Your task to perform on an android device: Open eBay Image 0: 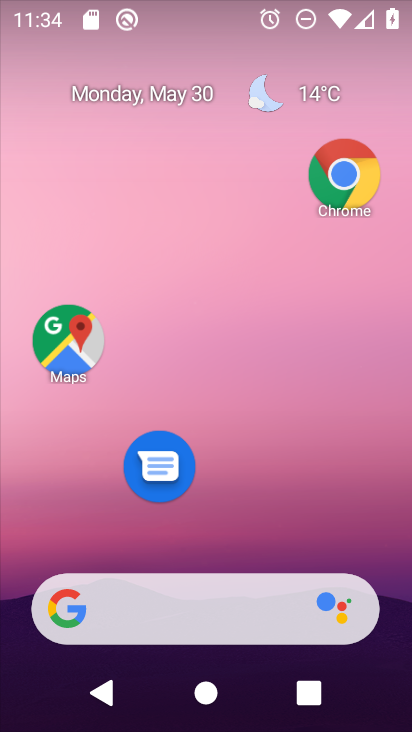
Step 0: click (344, 176)
Your task to perform on an android device: Open eBay Image 1: 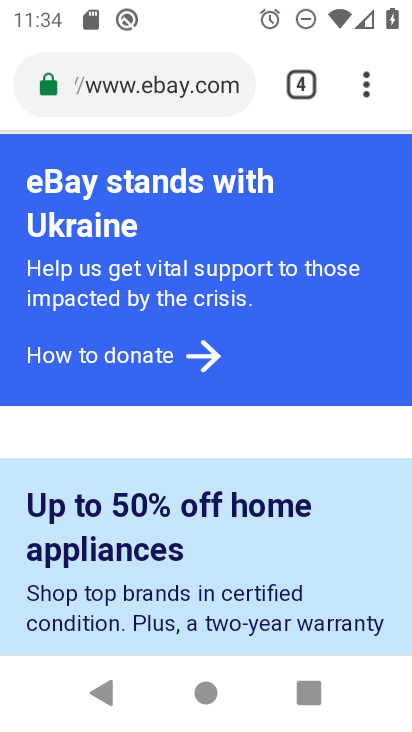
Step 1: task complete